Your task to perform on an android device: Go to Amazon Image 0: 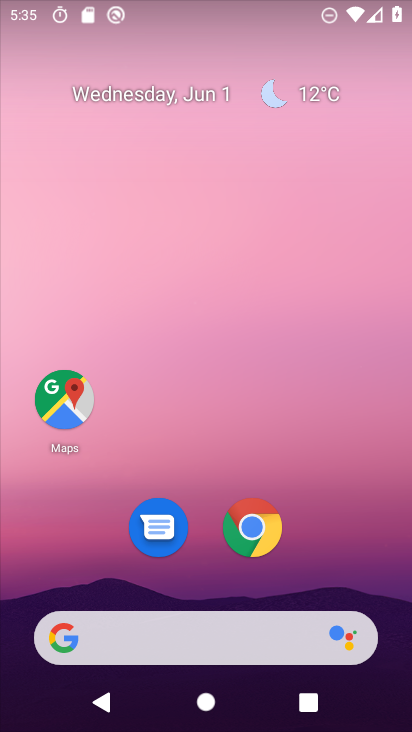
Step 0: click (246, 532)
Your task to perform on an android device: Go to Amazon Image 1: 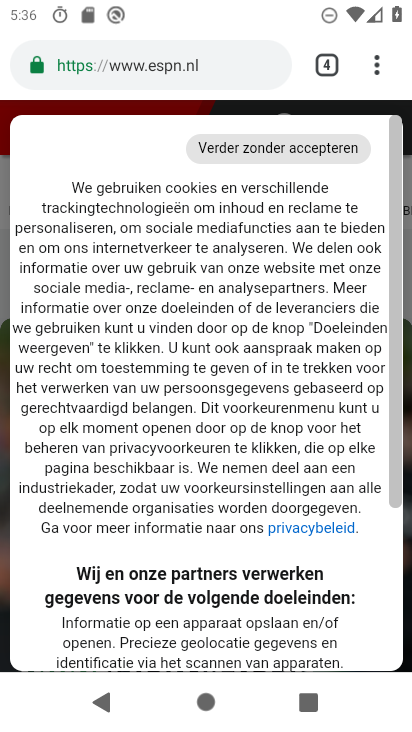
Step 1: click (330, 70)
Your task to perform on an android device: Go to Amazon Image 2: 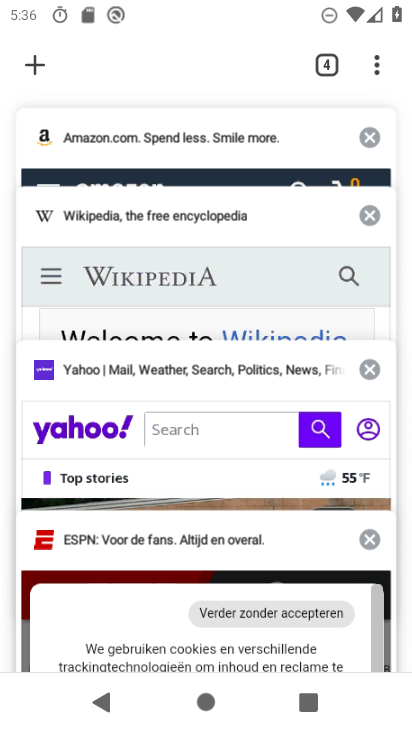
Step 2: click (88, 151)
Your task to perform on an android device: Go to Amazon Image 3: 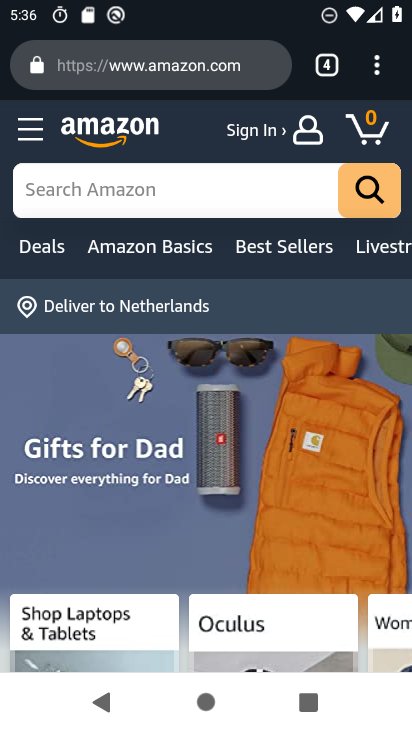
Step 3: task complete